Your task to perform on an android device: Open Youtube and go to "Your channel" Image 0: 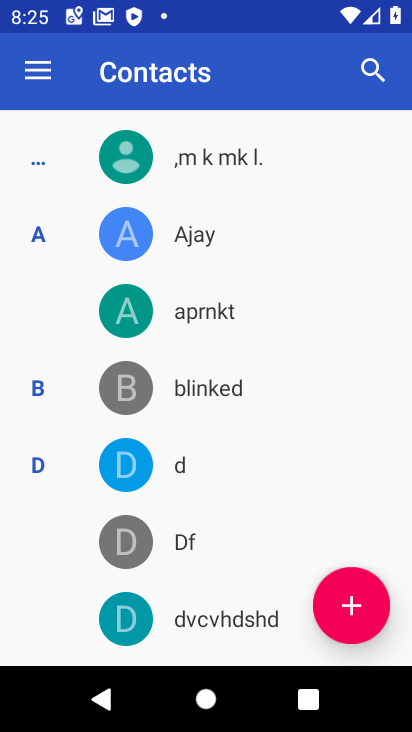
Step 0: task complete